Your task to perform on an android device: Add rayovac triple a to the cart on newegg.com Image 0: 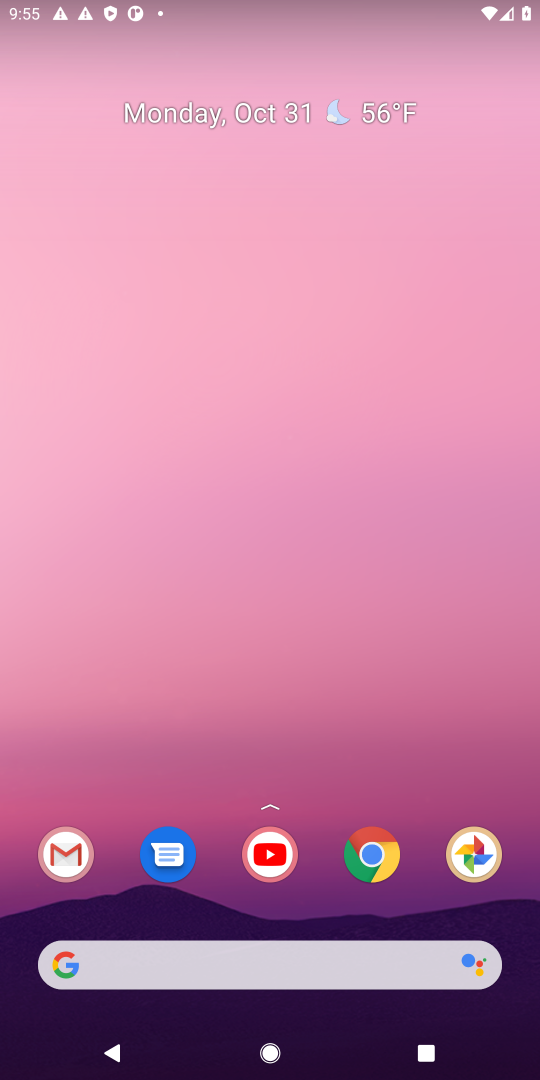
Step 0: click (278, 943)
Your task to perform on an android device: Add rayovac triple a to the cart on newegg.com Image 1: 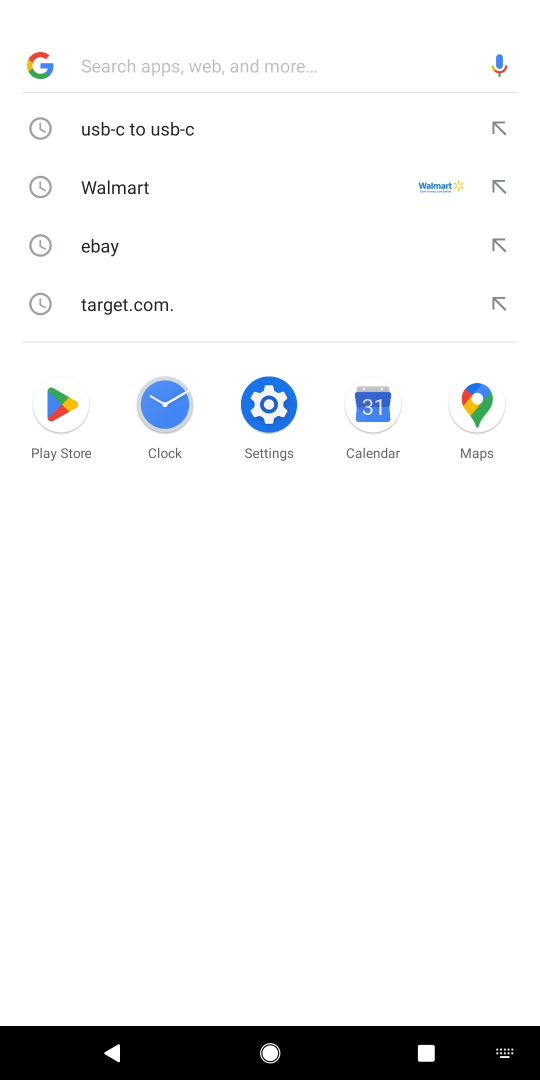
Step 1: task complete